Your task to perform on an android device: find snoozed emails in the gmail app Image 0: 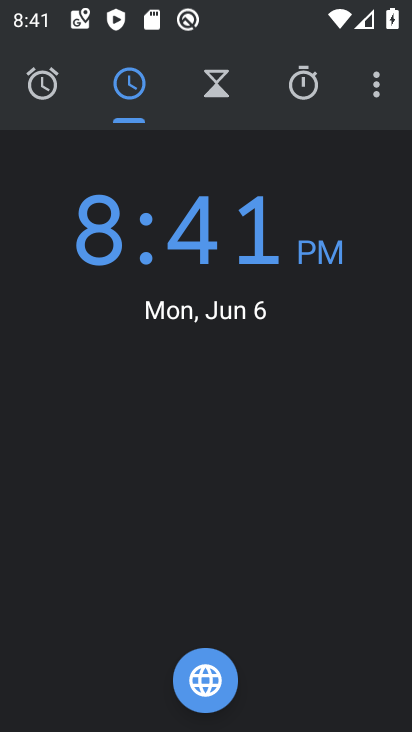
Step 0: press home button
Your task to perform on an android device: find snoozed emails in the gmail app Image 1: 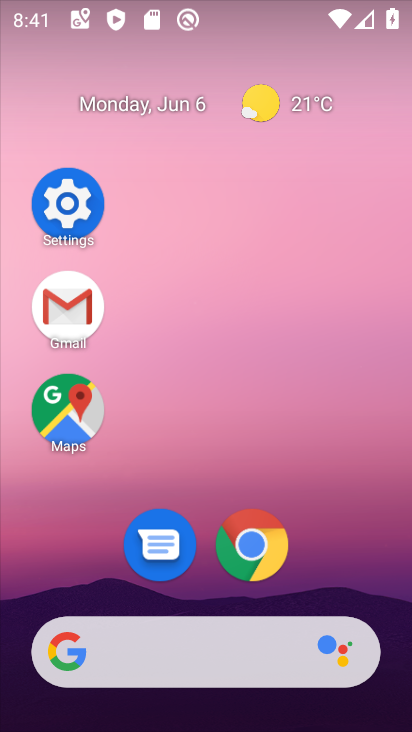
Step 1: click (61, 320)
Your task to perform on an android device: find snoozed emails in the gmail app Image 2: 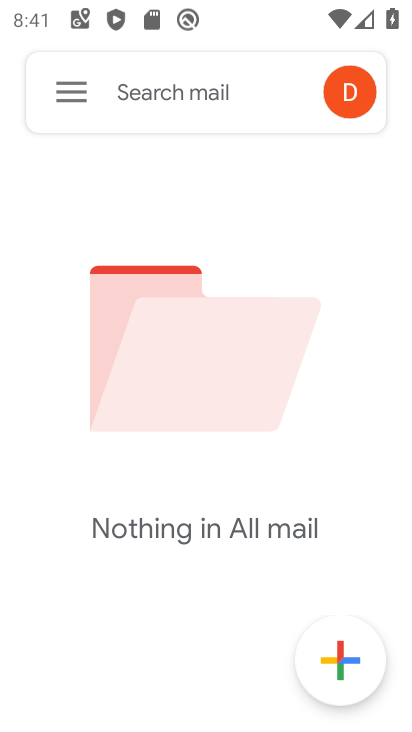
Step 2: click (56, 85)
Your task to perform on an android device: find snoozed emails in the gmail app Image 3: 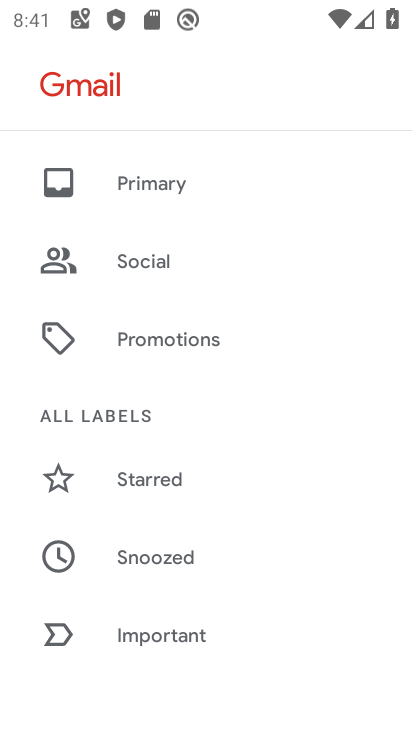
Step 3: drag from (208, 216) to (253, 655)
Your task to perform on an android device: find snoozed emails in the gmail app Image 4: 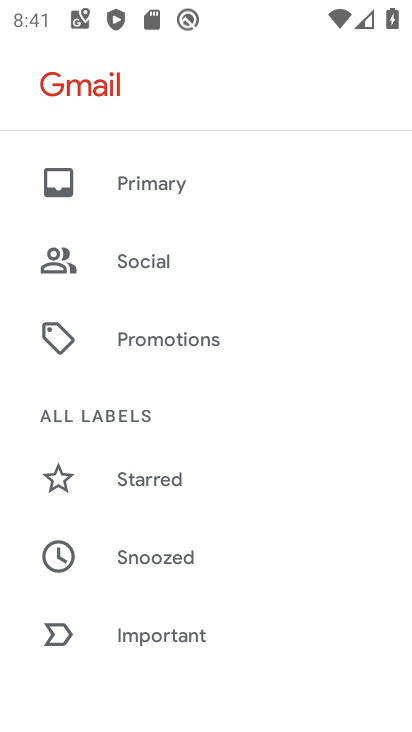
Step 4: drag from (247, 231) to (218, 598)
Your task to perform on an android device: find snoozed emails in the gmail app Image 5: 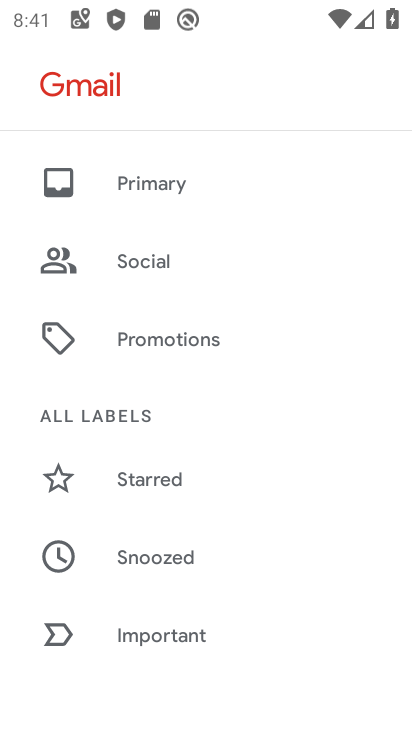
Step 5: drag from (217, 598) to (187, 122)
Your task to perform on an android device: find snoozed emails in the gmail app Image 6: 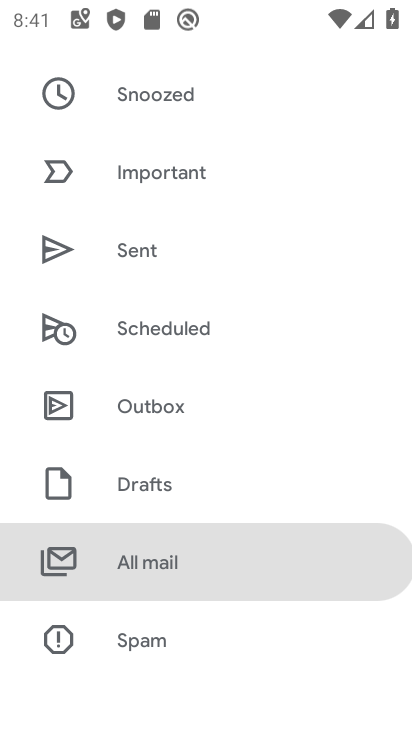
Step 6: drag from (238, 460) to (191, 55)
Your task to perform on an android device: find snoozed emails in the gmail app Image 7: 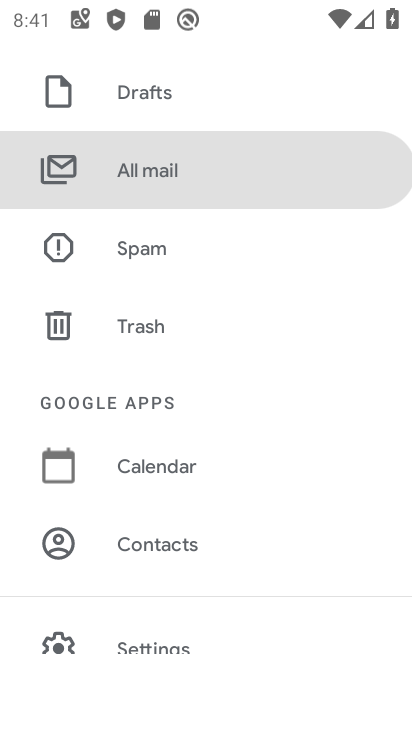
Step 7: drag from (228, 485) to (185, 76)
Your task to perform on an android device: find snoozed emails in the gmail app Image 8: 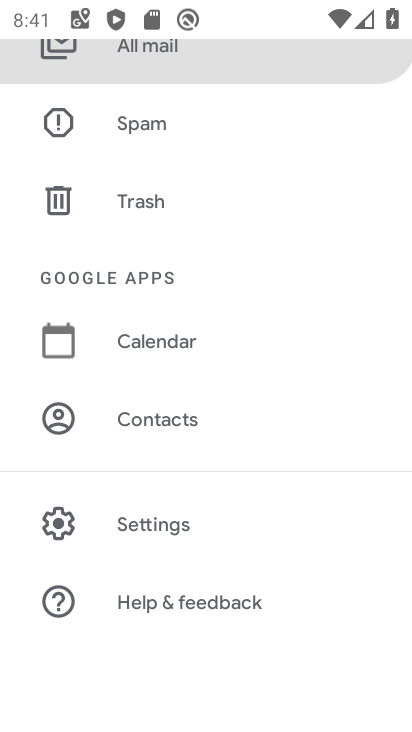
Step 8: click (249, 514)
Your task to perform on an android device: find snoozed emails in the gmail app Image 9: 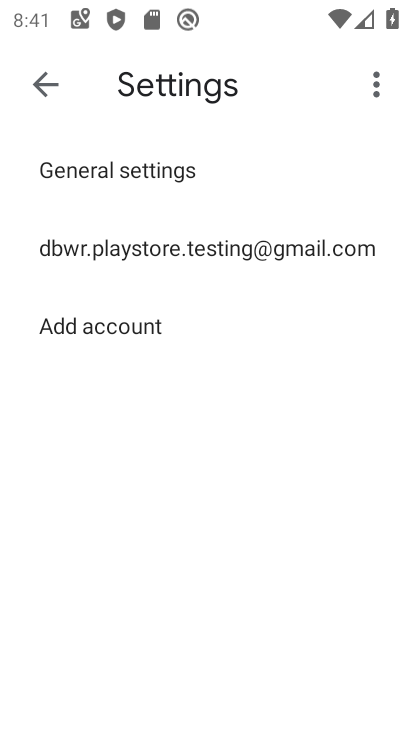
Step 9: click (166, 227)
Your task to perform on an android device: find snoozed emails in the gmail app Image 10: 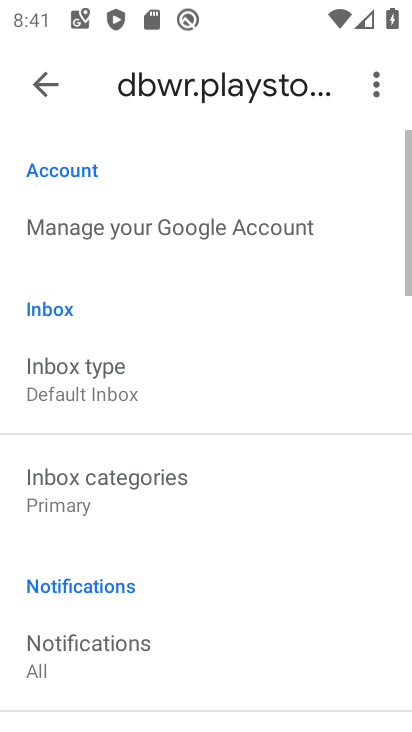
Step 10: drag from (166, 227) to (160, 411)
Your task to perform on an android device: find snoozed emails in the gmail app Image 11: 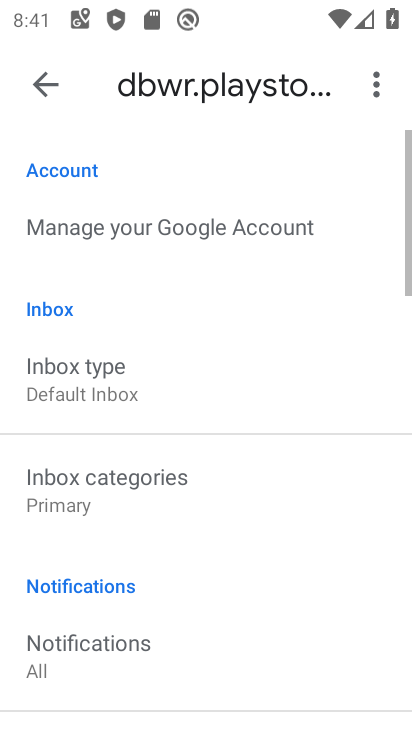
Step 11: click (45, 69)
Your task to perform on an android device: find snoozed emails in the gmail app Image 12: 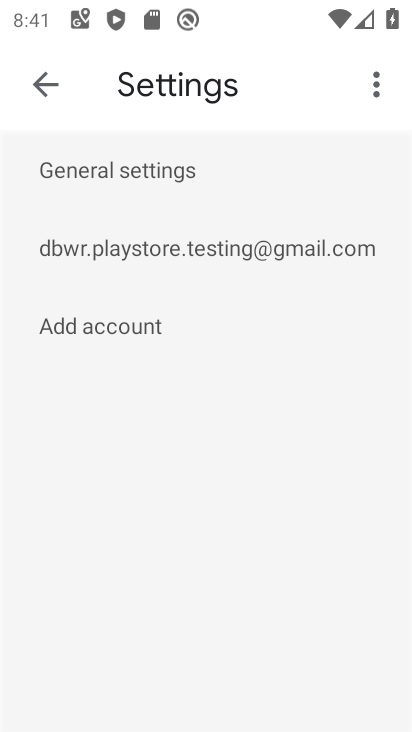
Step 12: click (45, 69)
Your task to perform on an android device: find snoozed emails in the gmail app Image 13: 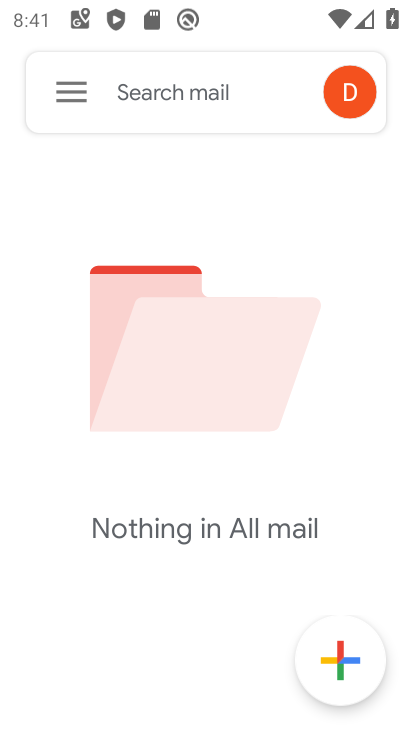
Step 13: click (45, 98)
Your task to perform on an android device: find snoozed emails in the gmail app Image 14: 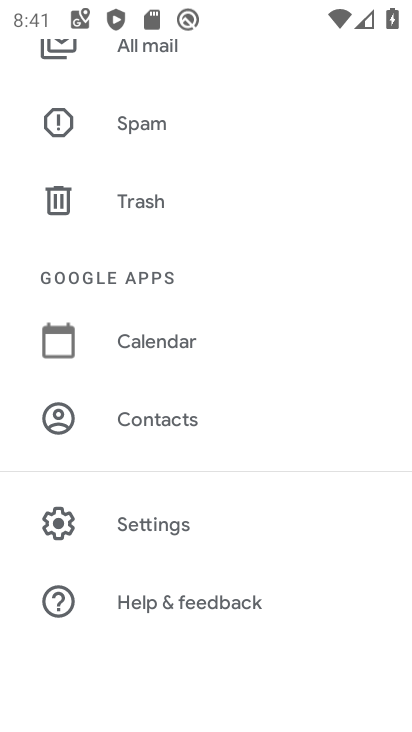
Step 14: drag from (231, 127) to (246, 475)
Your task to perform on an android device: find snoozed emails in the gmail app Image 15: 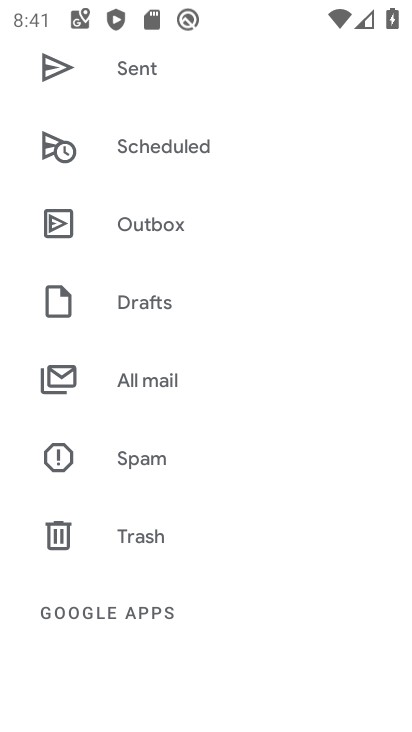
Step 15: drag from (231, 142) to (209, 610)
Your task to perform on an android device: find snoozed emails in the gmail app Image 16: 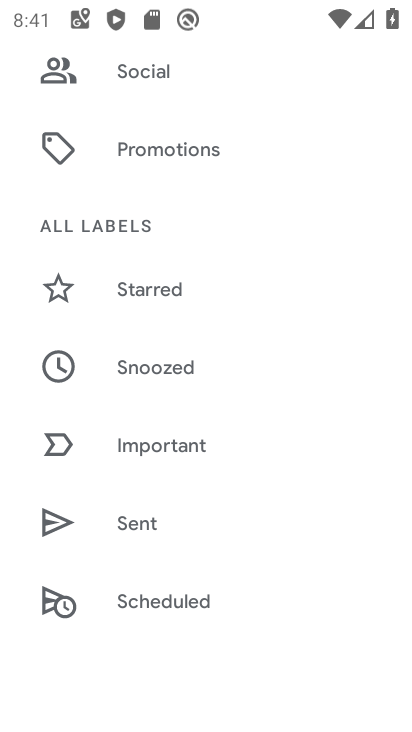
Step 16: click (195, 386)
Your task to perform on an android device: find snoozed emails in the gmail app Image 17: 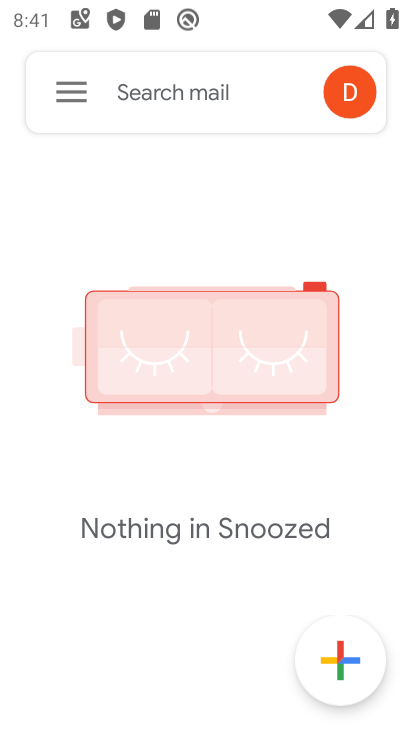
Step 17: task complete